Your task to perform on an android device: Go to Google Image 0: 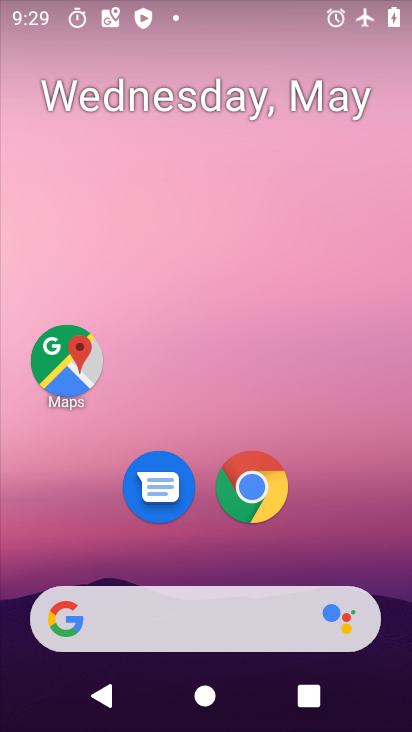
Step 0: drag from (230, 557) to (243, 192)
Your task to perform on an android device: Go to Google Image 1: 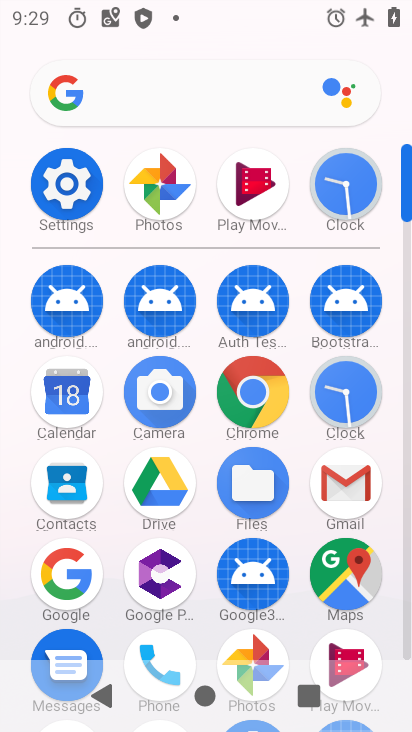
Step 1: click (53, 566)
Your task to perform on an android device: Go to Google Image 2: 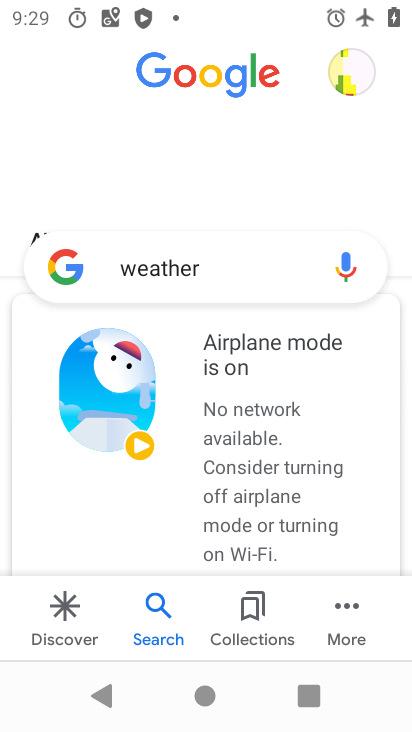
Step 2: task complete